Your task to perform on an android device: make emails show in primary in the gmail app Image 0: 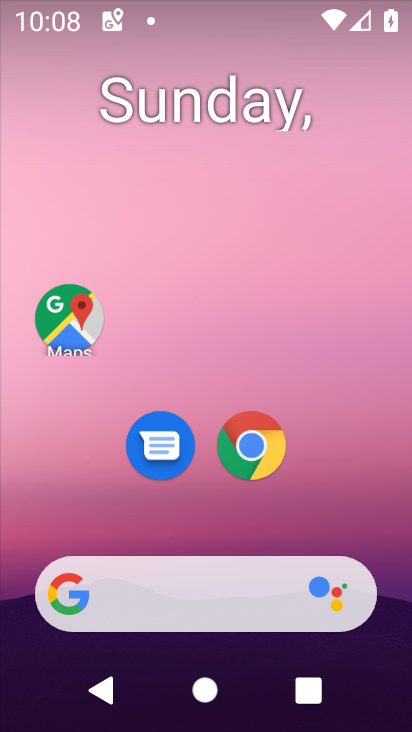
Step 0: press home button
Your task to perform on an android device: make emails show in primary in the gmail app Image 1: 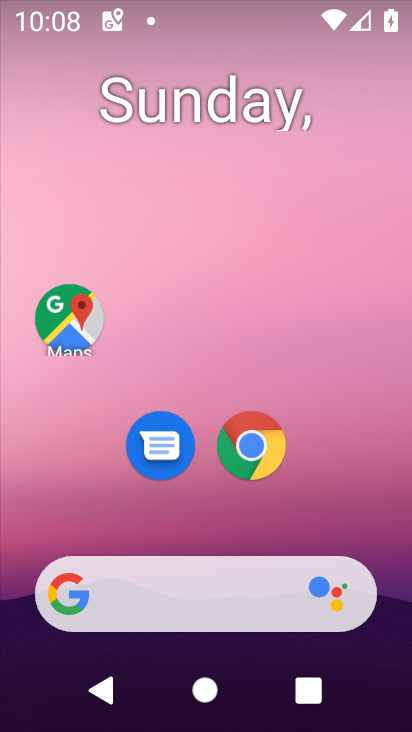
Step 1: press home button
Your task to perform on an android device: make emails show in primary in the gmail app Image 2: 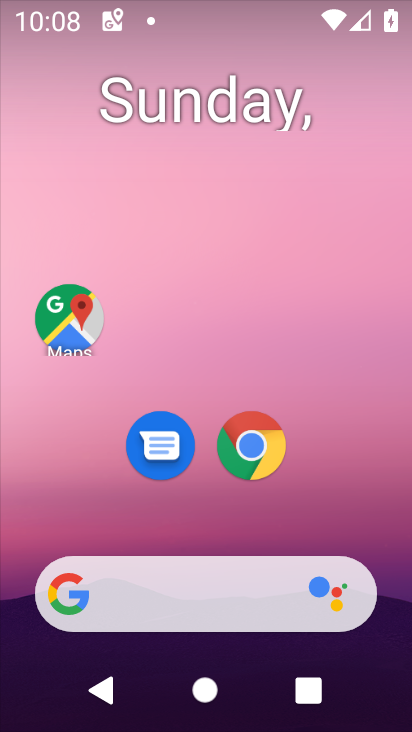
Step 2: drag from (350, 462) to (306, 169)
Your task to perform on an android device: make emails show in primary in the gmail app Image 3: 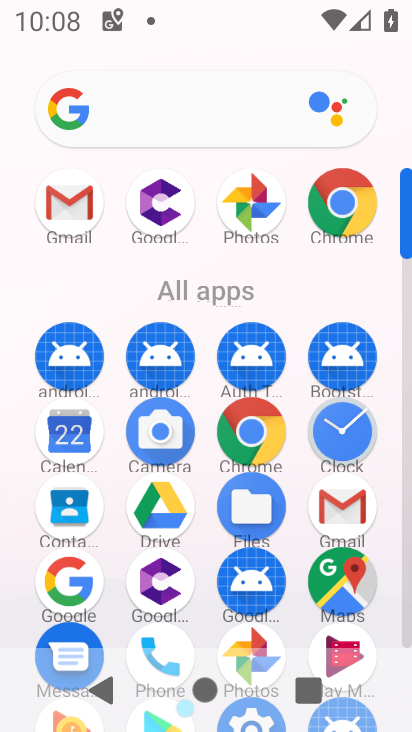
Step 3: click (343, 499)
Your task to perform on an android device: make emails show in primary in the gmail app Image 4: 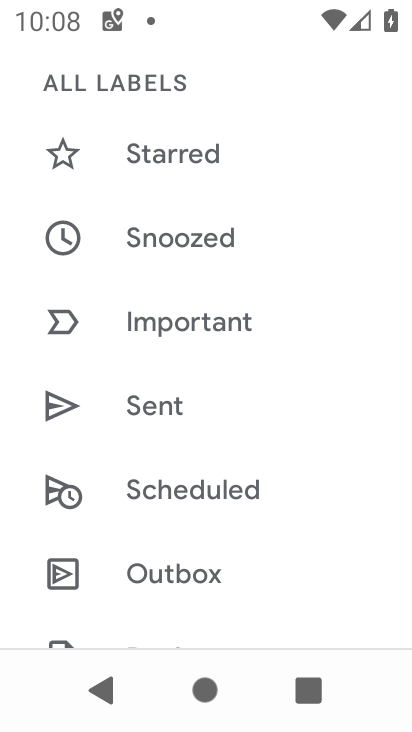
Step 4: task complete